Your task to perform on an android device: Go to privacy settings Image 0: 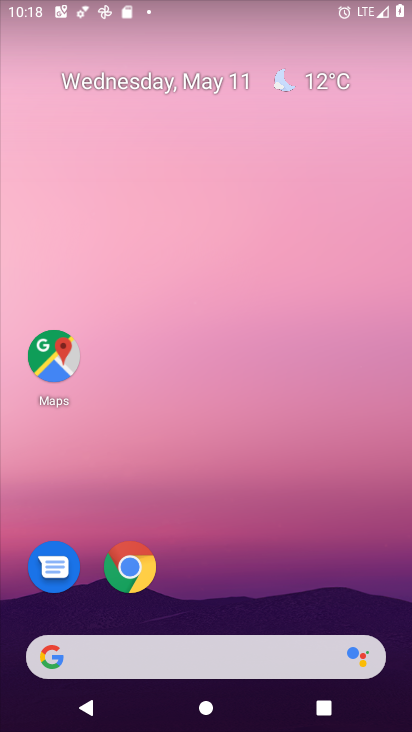
Step 0: drag from (303, 540) to (268, 83)
Your task to perform on an android device: Go to privacy settings Image 1: 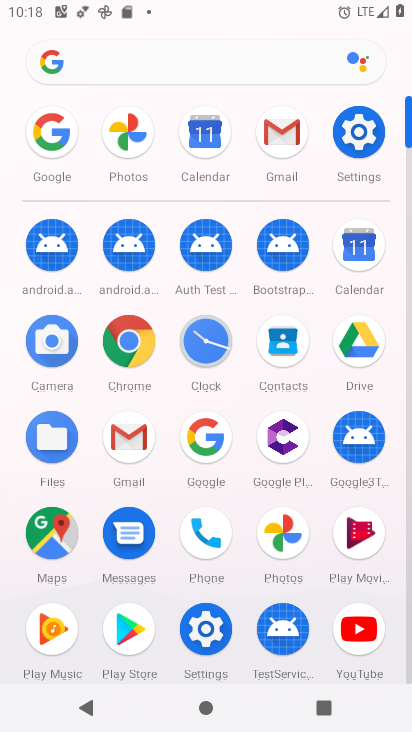
Step 1: click (349, 146)
Your task to perform on an android device: Go to privacy settings Image 2: 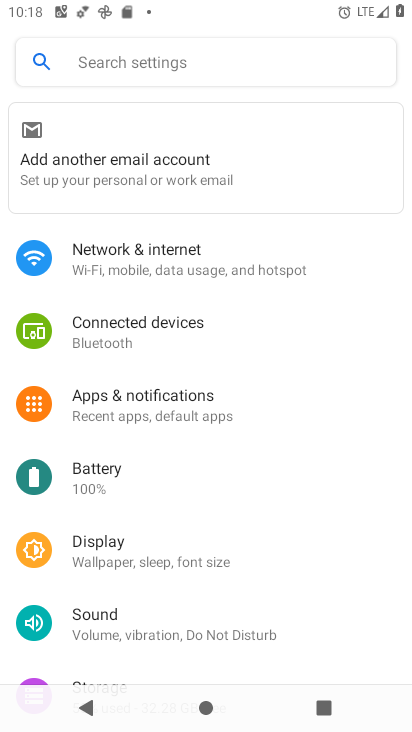
Step 2: drag from (226, 581) to (227, 245)
Your task to perform on an android device: Go to privacy settings Image 3: 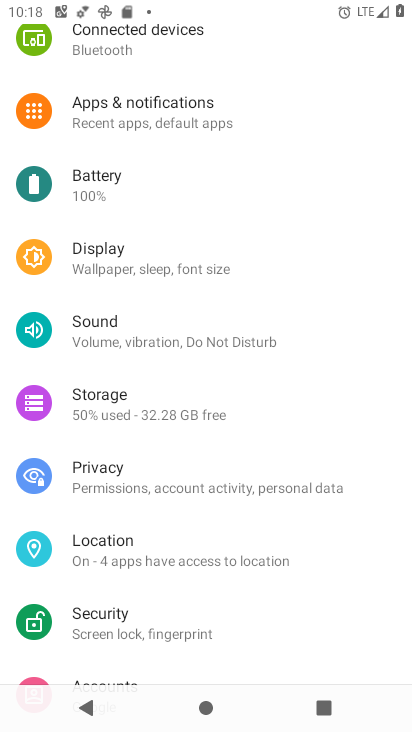
Step 3: click (160, 456)
Your task to perform on an android device: Go to privacy settings Image 4: 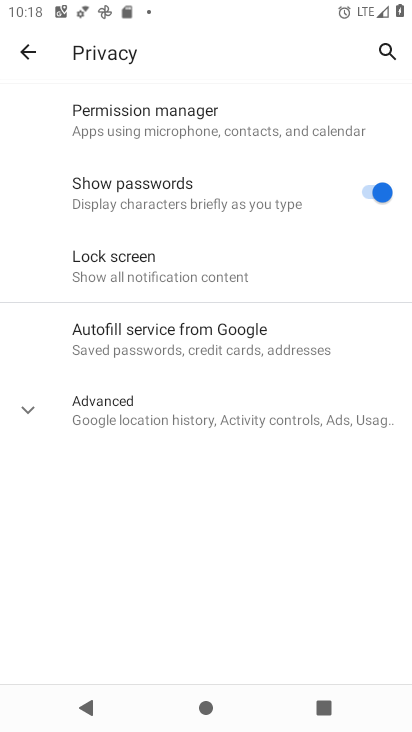
Step 4: task complete